Your task to perform on an android device: toggle translation in the chrome app Image 0: 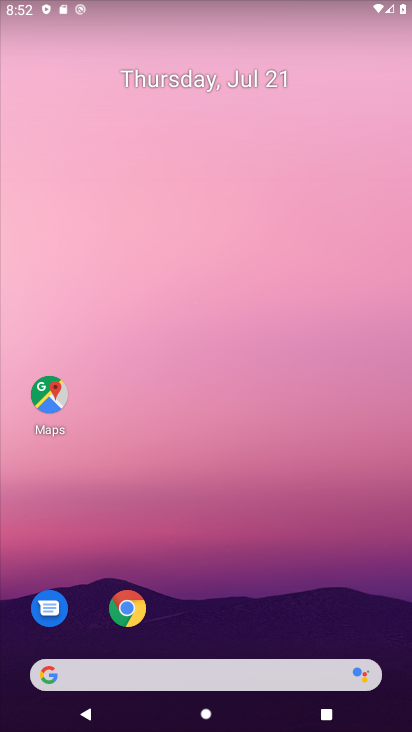
Step 0: drag from (222, 618) to (216, 85)
Your task to perform on an android device: toggle translation in the chrome app Image 1: 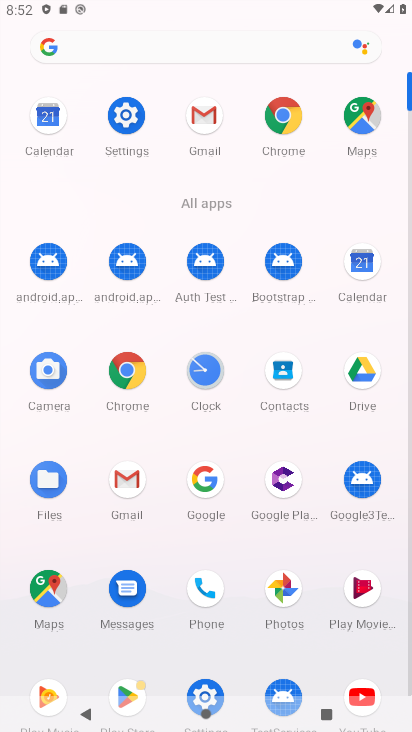
Step 1: click (289, 124)
Your task to perform on an android device: toggle translation in the chrome app Image 2: 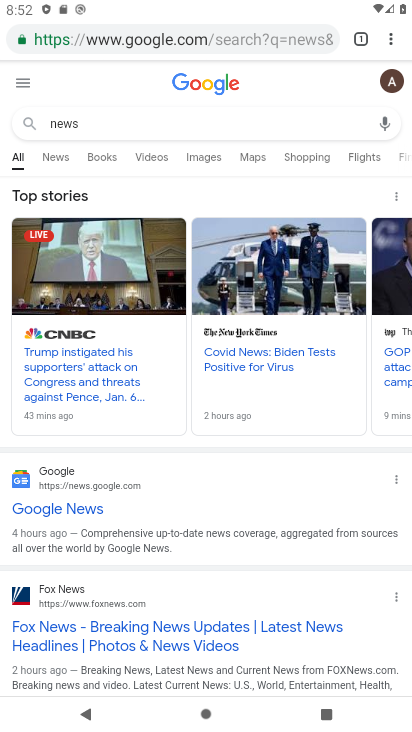
Step 2: click (395, 41)
Your task to perform on an android device: toggle translation in the chrome app Image 3: 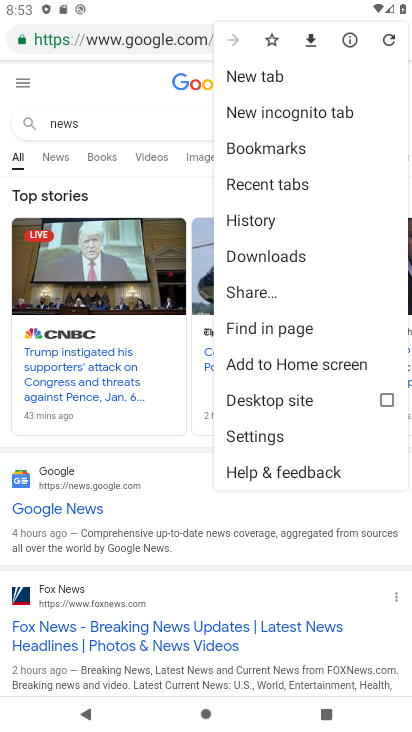
Step 3: click (279, 434)
Your task to perform on an android device: toggle translation in the chrome app Image 4: 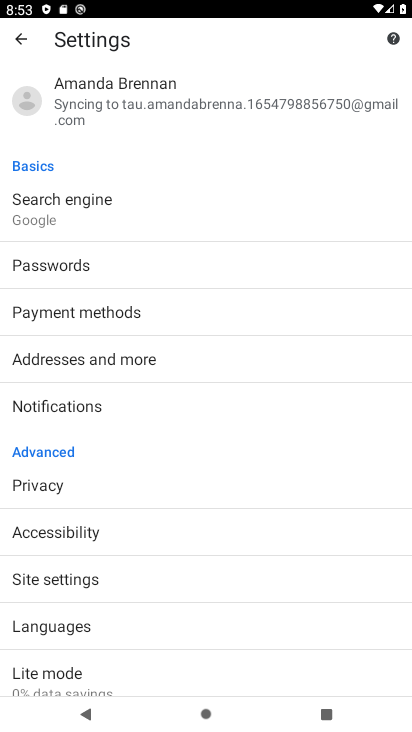
Step 4: click (186, 631)
Your task to perform on an android device: toggle translation in the chrome app Image 5: 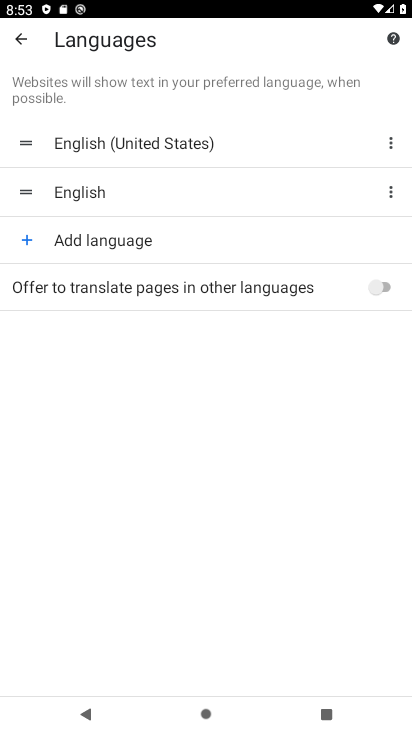
Step 5: click (387, 292)
Your task to perform on an android device: toggle translation in the chrome app Image 6: 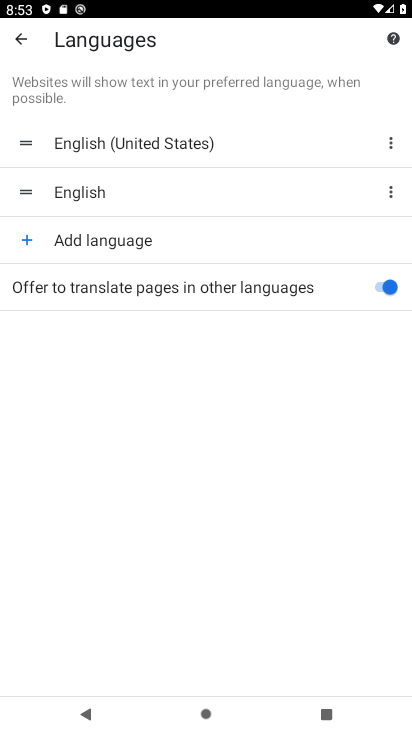
Step 6: task complete